Your task to perform on an android device: Search for "usb-a" on ebay, select the first entry, and add it to the cart. Image 0: 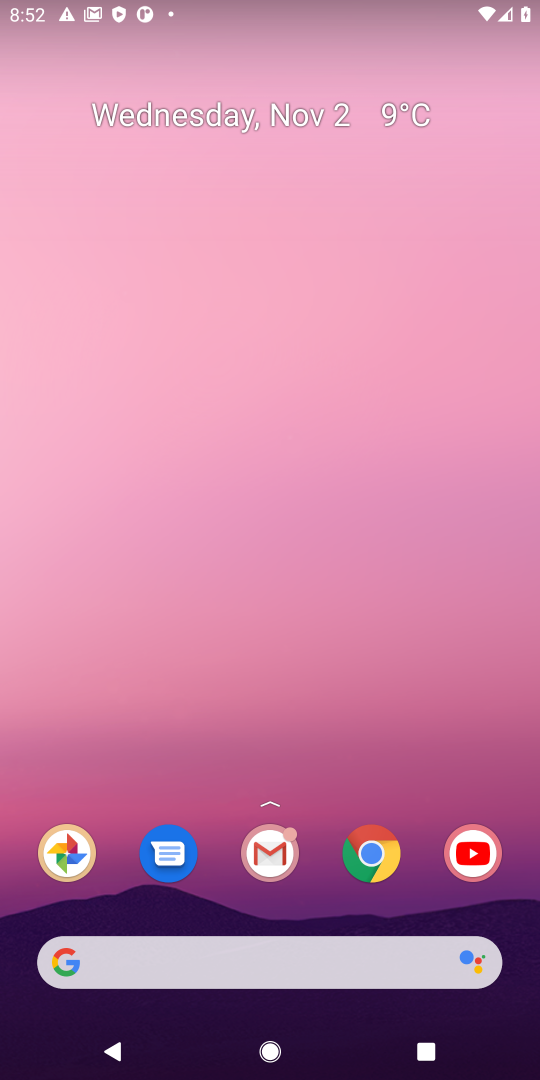
Step 0: click (373, 852)
Your task to perform on an android device: Search for "usb-a" on ebay, select the first entry, and add it to the cart. Image 1: 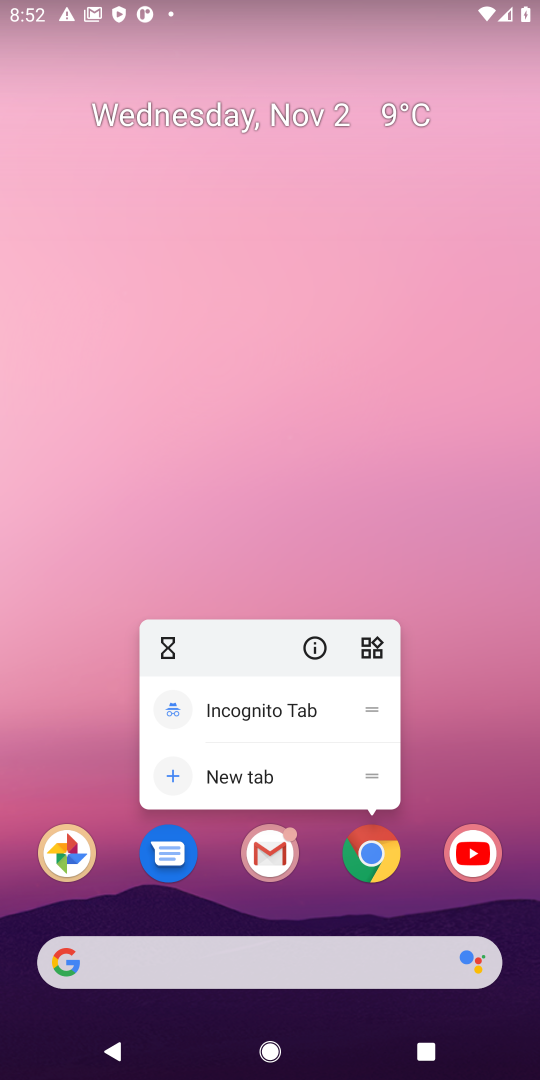
Step 1: click (363, 862)
Your task to perform on an android device: Search for "usb-a" on ebay, select the first entry, and add it to the cart. Image 2: 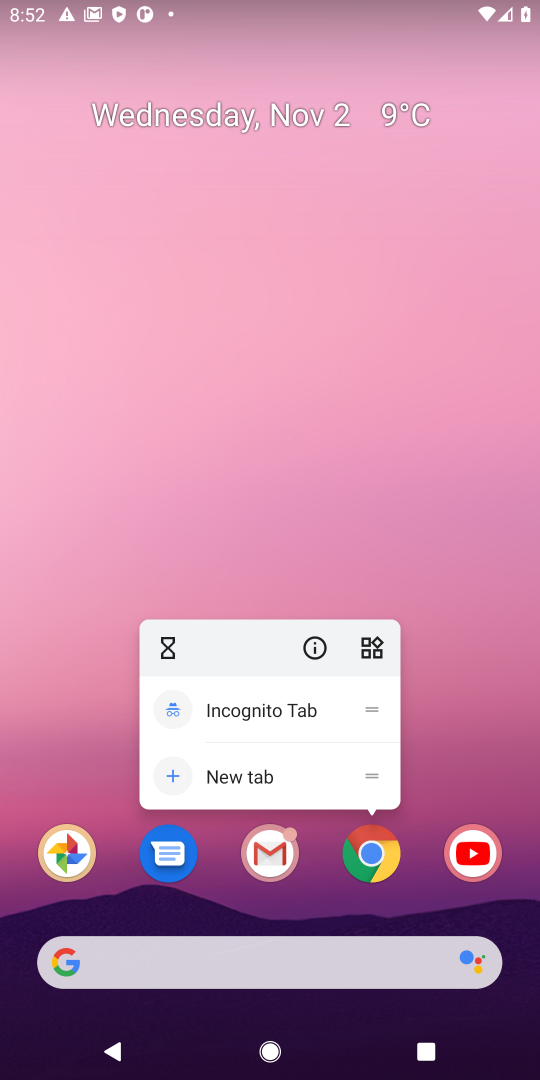
Step 2: click (367, 858)
Your task to perform on an android device: Search for "usb-a" on ebay, select the first entry, and add it to the cart. Image 3: 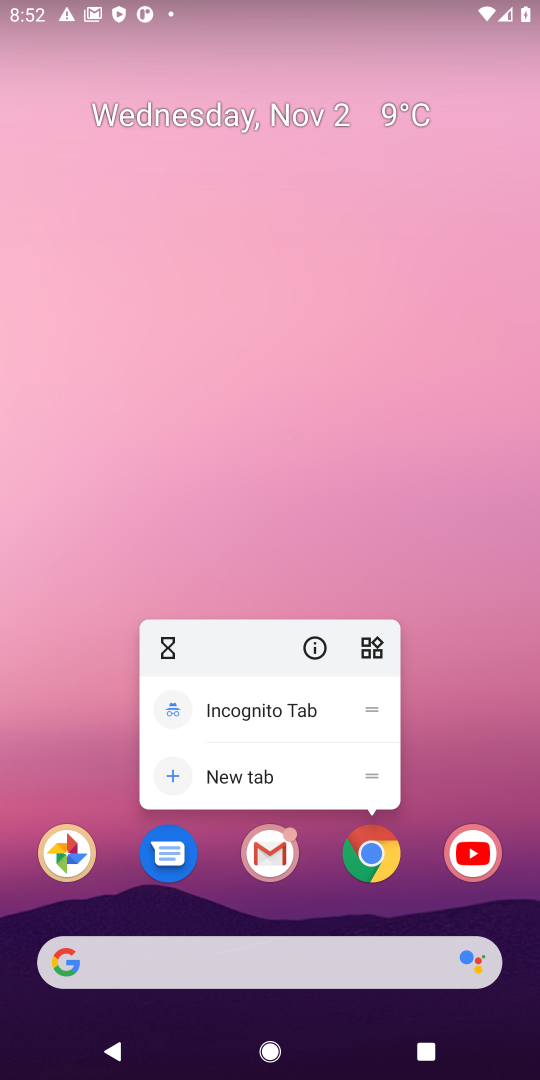
Step 3: click (374, 846)
Your task to perform on an android device: Search for "usb-a" on ebay, select the first entry, and add it to the cart. Image 4: 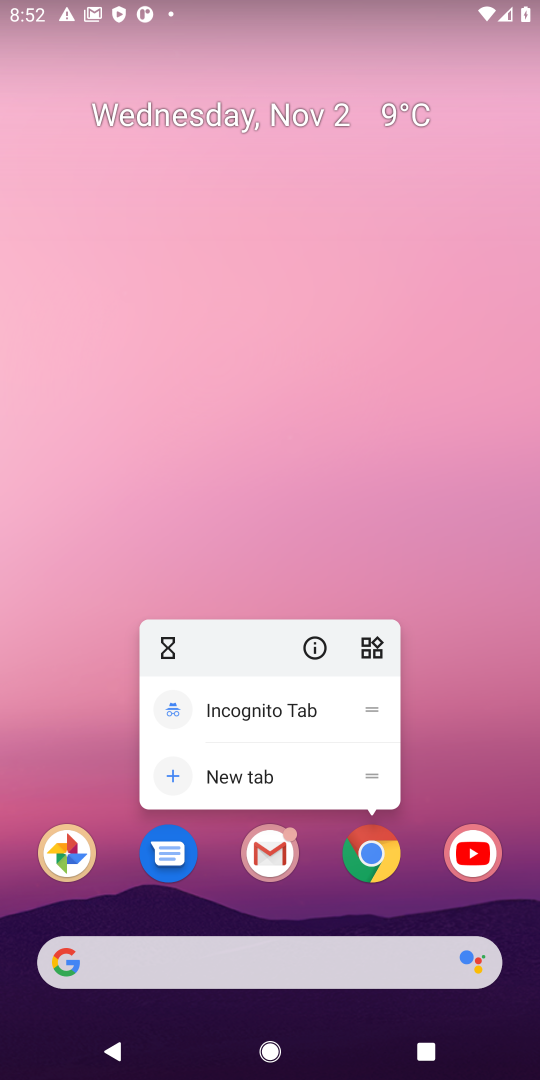
Step 4: click (374, 845)
Your task to perform on an android device: Search for "usb-a" on ebay, select the first entry, and add it to the cart. Image 5: 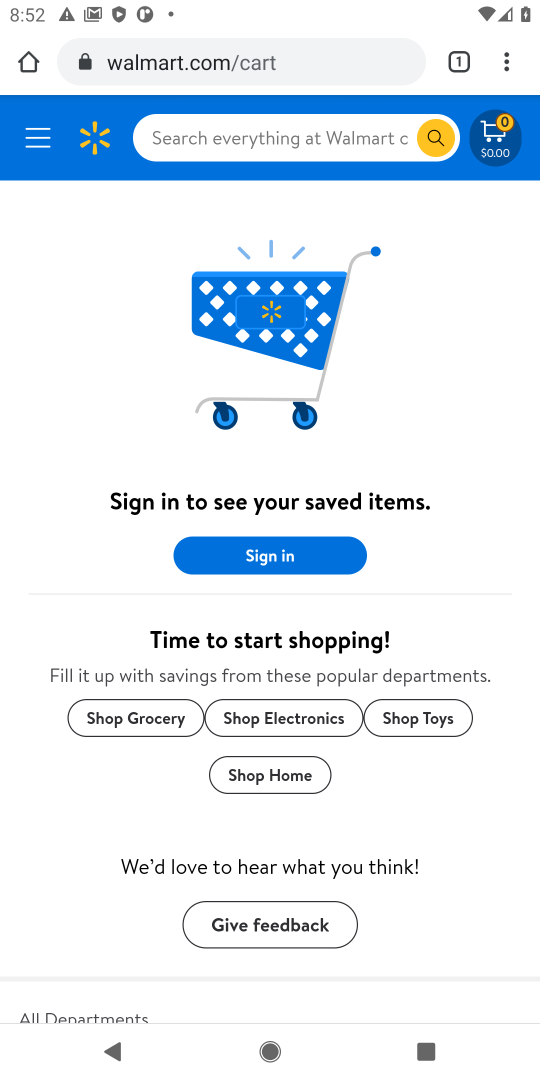
Step 5: click (308, 71)
Your task to perform on an android device: Search for "usb-a" on ebay, select the first entry, and add it to the cart. Image 6: 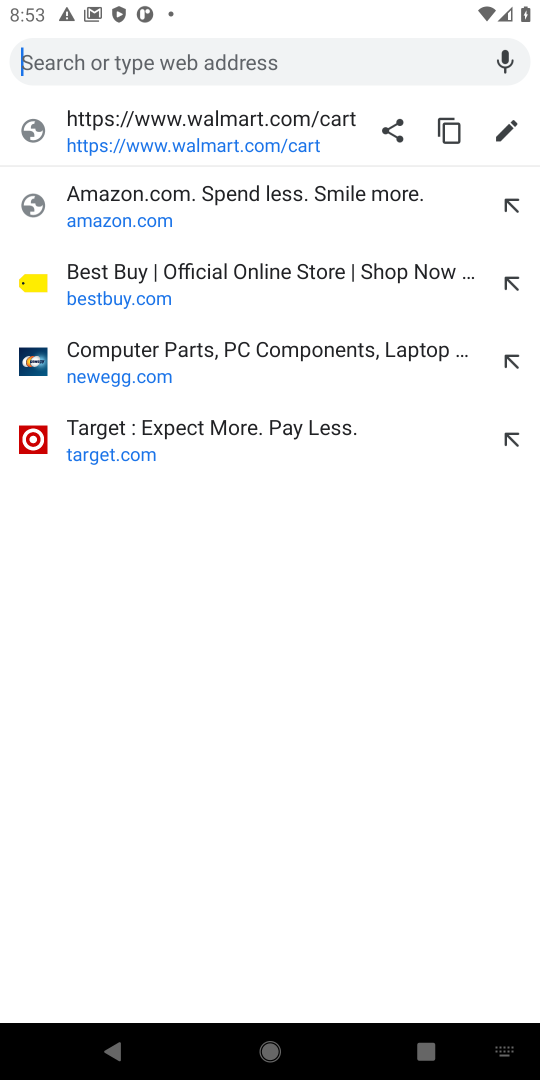
Step 6: type " ebay"
Your task to perform on an android device: Search for "usb-a" on ebay, select the first entry, and add it to the cart. Image 7: 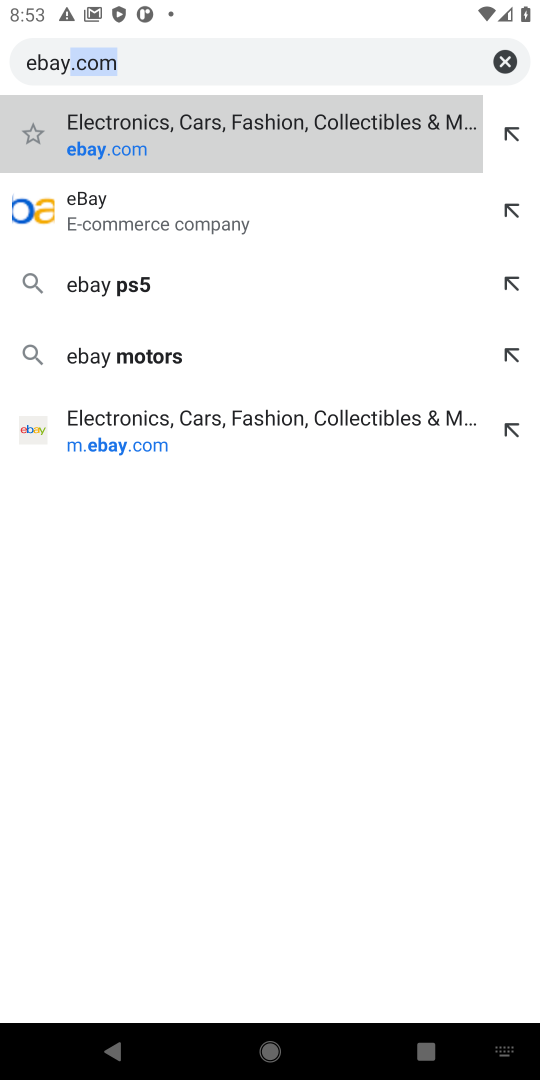
Step 7: press enter
Your task to perform on an android device: Search for "usb-a" on ebay, select the first entry, and add it to the cart. Image 8: 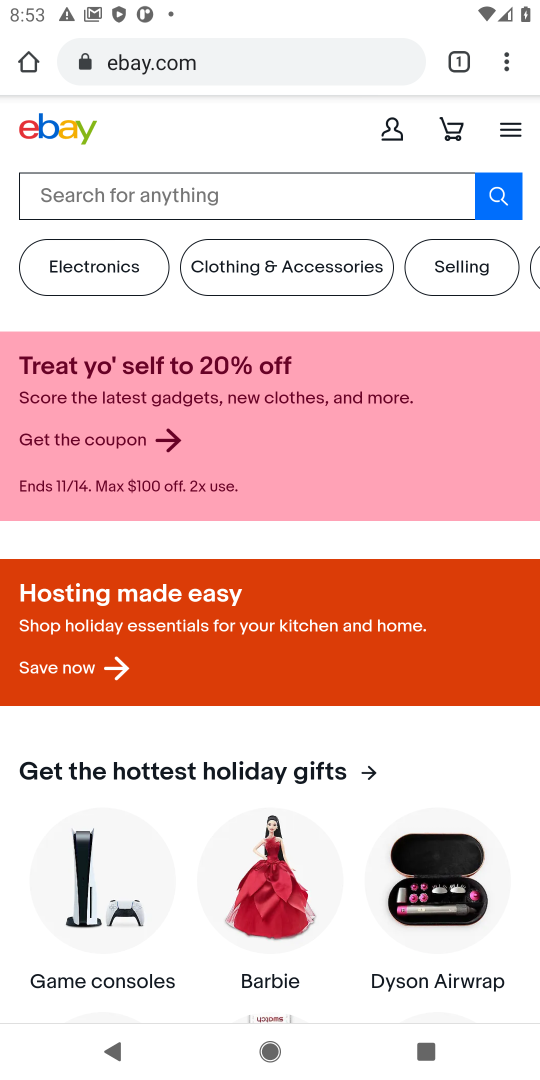
Step 8: click (236, 190)
Your task to perform on an android device: Search for "usb-a" on ebay, select the first entry, and add it to the cart. Image 9: 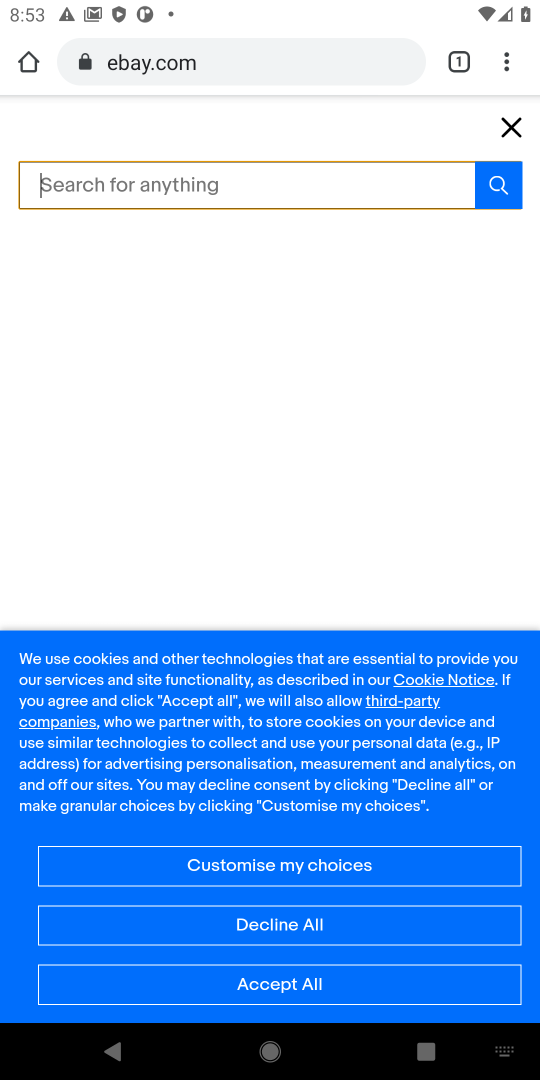
Step 9: click (316, 983)
Your task to perform on an android device: Search for "usb-a" on ebay, select the first entry, and add it to the cart. Image 10: 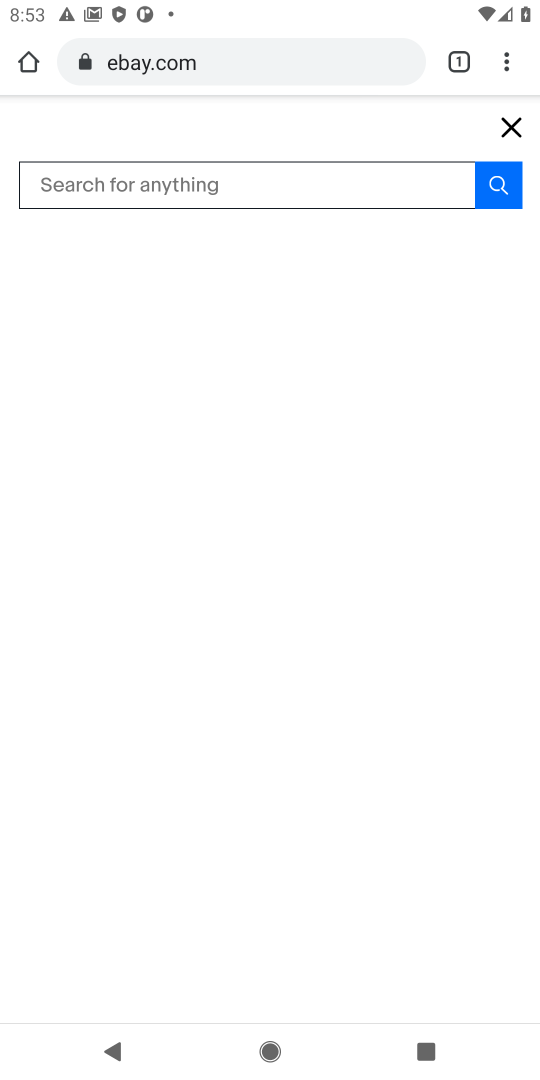
Step 10: click (216, 181)
Your task to perform on an android device: Search for "usb-a" on ebay, select the first entry, and add it to the cart. Image 11: 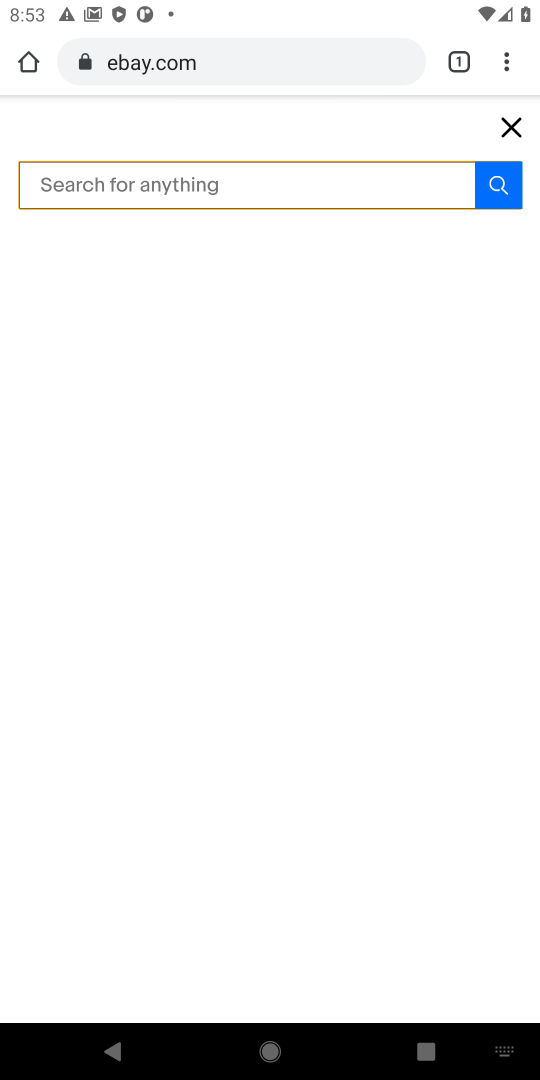
Step 11: type "usb-a"
Your task to perform on an android device: Search for "usb-a" on ebay, select the first entry, and add it to the cart. Image 12: 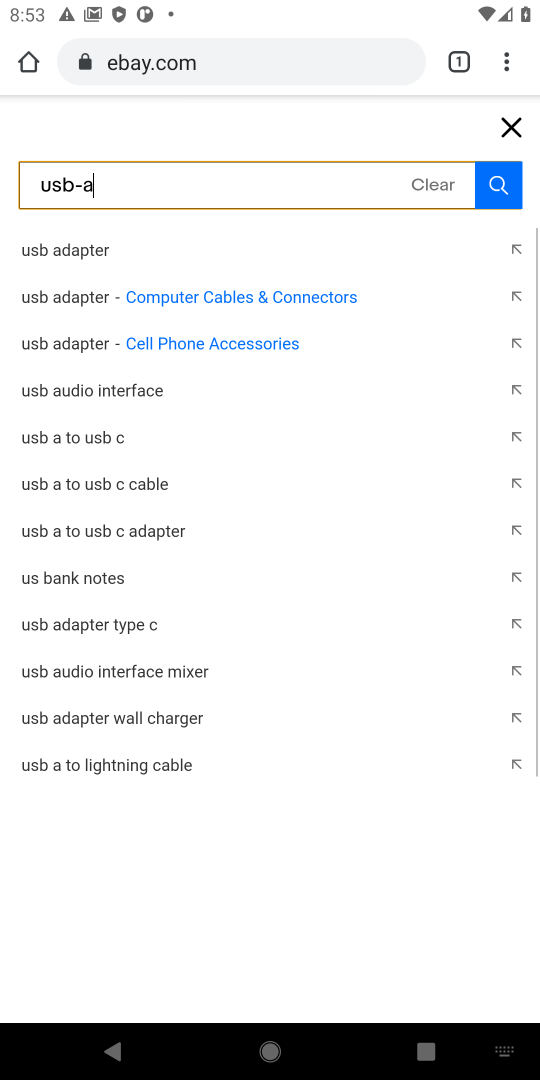
Step 12: press enter
Your task to perform on an android device: Search for "usb-a" on ebay, select the first entry, and add it to the cart. Image 13: 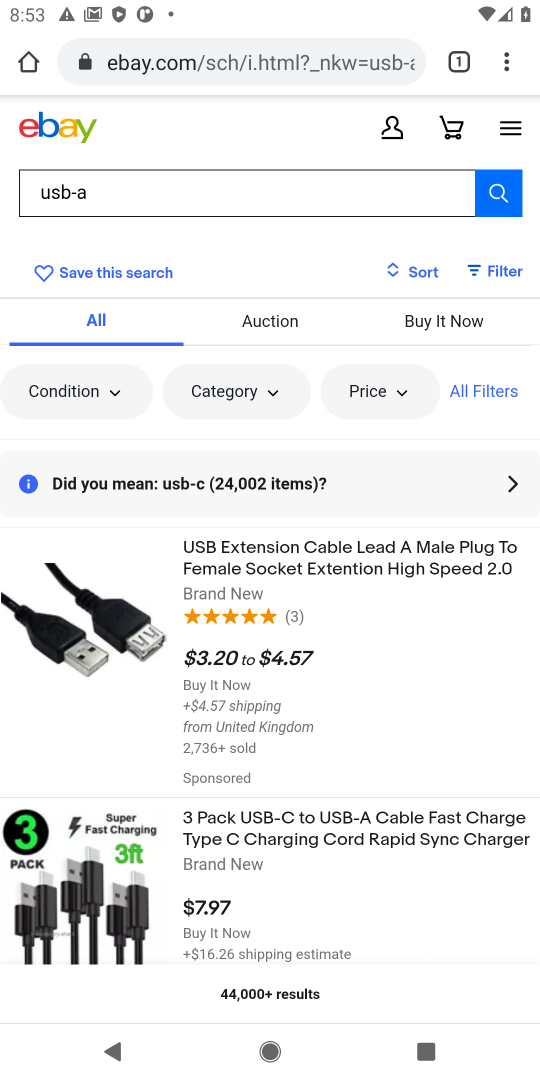
Step 13: click (274, 592)
Your task to perform on an android device: Search for "usb-a" on ebay, select the first entry, and add it to the cart. Image 14: 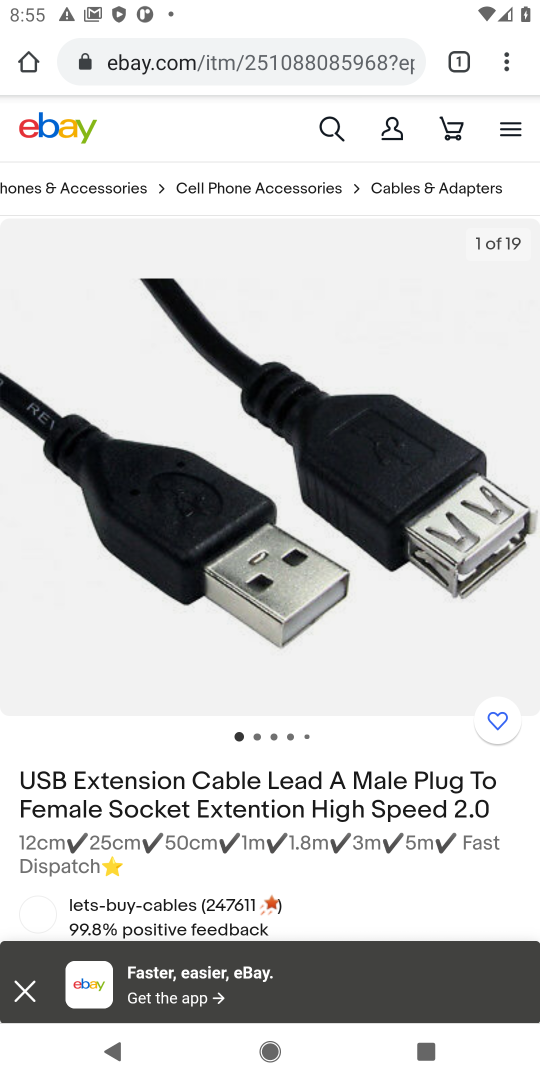
Step 14: task complete